Your task to perform on an android device: Toggle the flashlight Image 0: 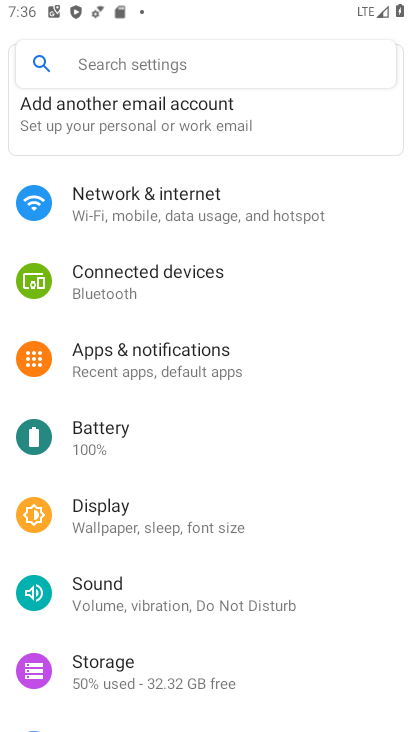
Step 0: drag from (165, 504) to (221, 110)
Your task to perform on an android device: Toggle the flashlight Image 1: 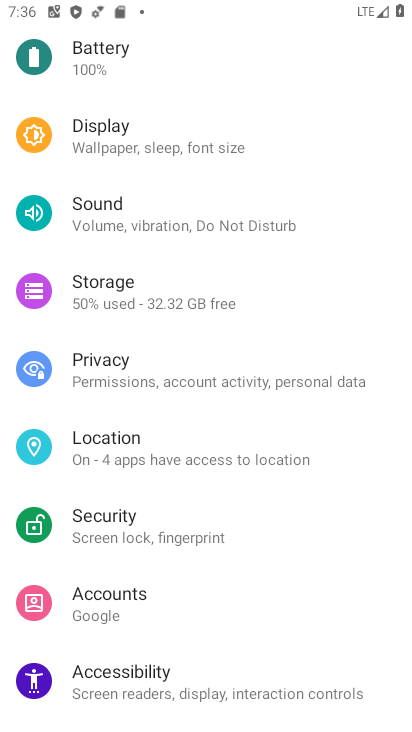
Step 1: task complete